Your task to perform on an android device: Open Wikipedia Image 0: 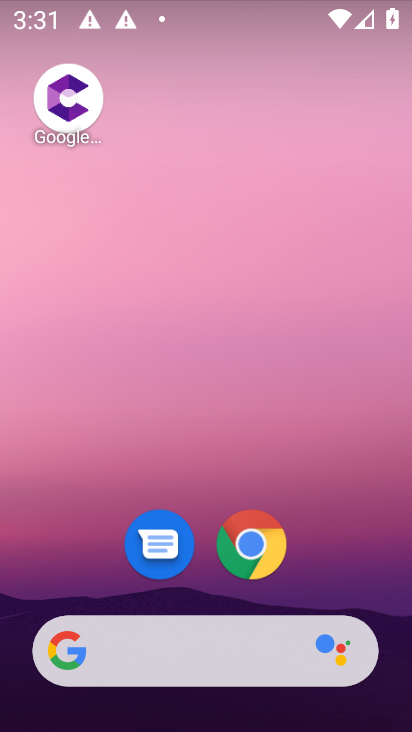
Step 0: click (204, 472)
Your task to perform on an android device: Open Wikipedia Image 1: 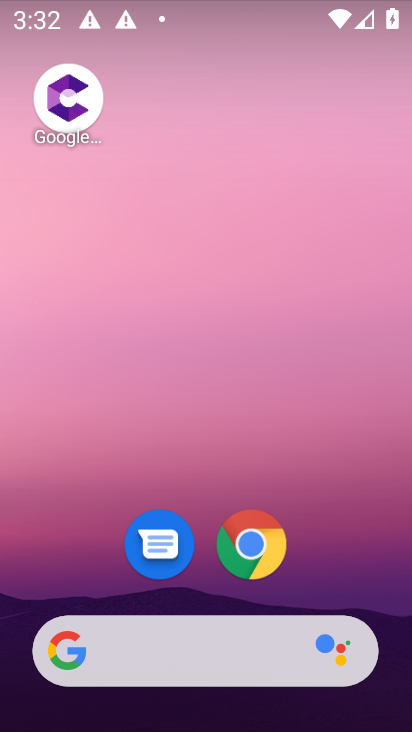
Step 1: click (244, 540)
Your task to perform on an android device: Open Wikipedia Image 2: 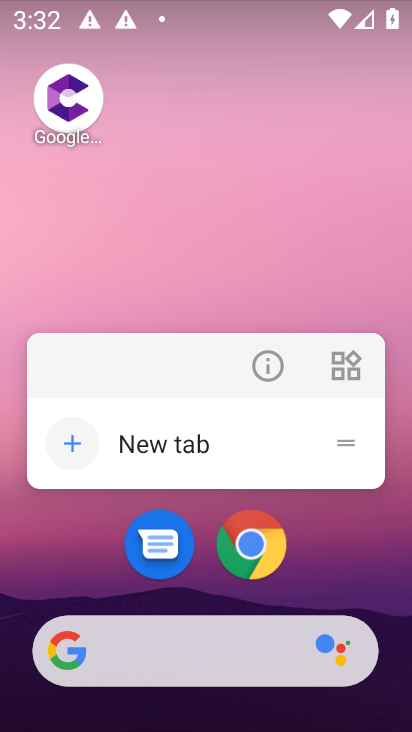
Step 2: click (250, 554)
Your task to perform on an android device: Open Wikipedia Image 3: 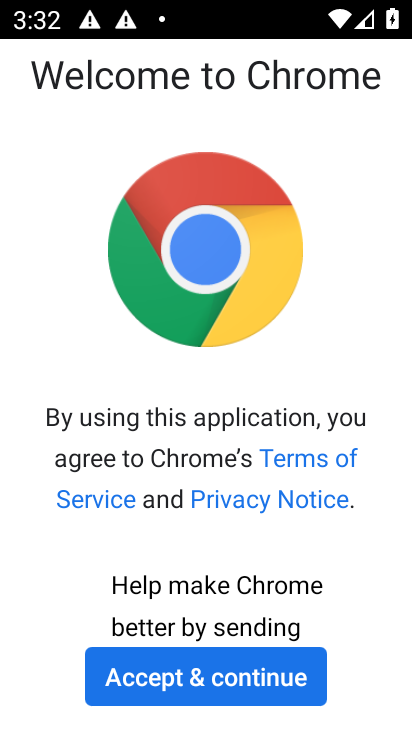
Step 3: click (170, 682)
Your task to perform on an android device: Open Wikipedia Image 4: 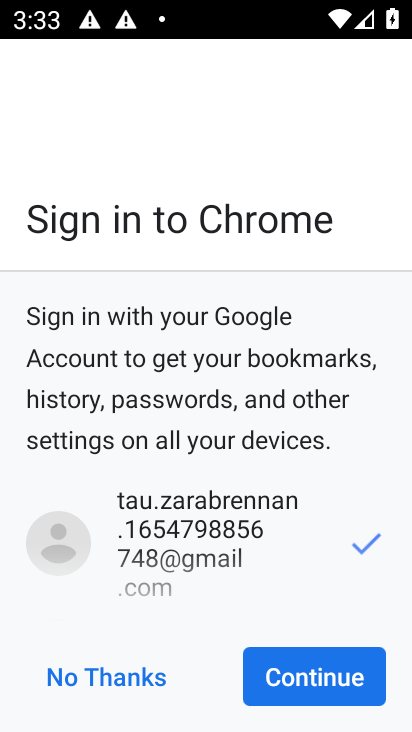
Step 4: click (310, 672)
Your task to perform on an android device: Open Wikipedia Image 5: 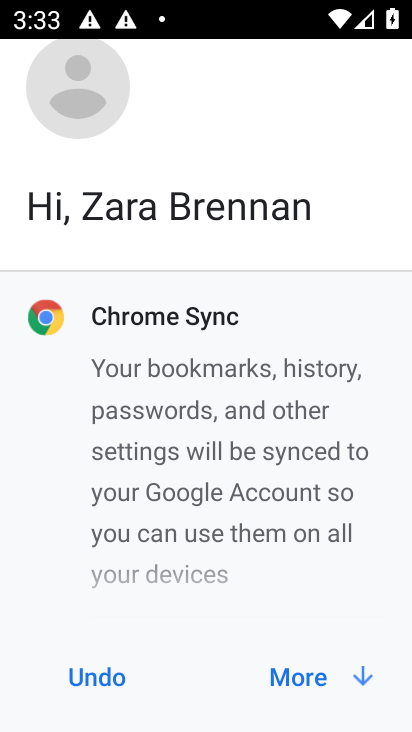
Step 5: click (302, 677)
Your task to perform on an android device: Open Wikipedia Image 6: 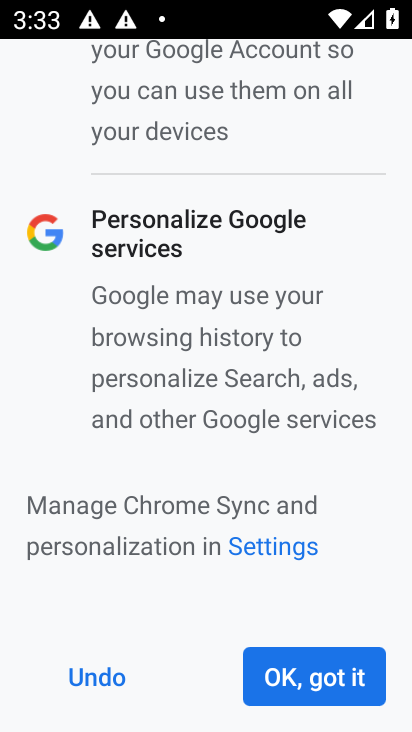
Step 6: click (302, 677)
Your task to perform on an android device: Open Wikipedia Image 7: 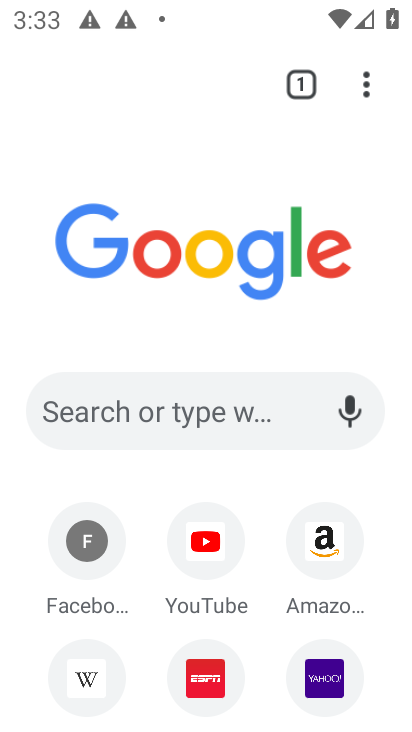
Step 7: click (79, 683)
Your task to perform on an android device: Open Wikipedia Image 8: 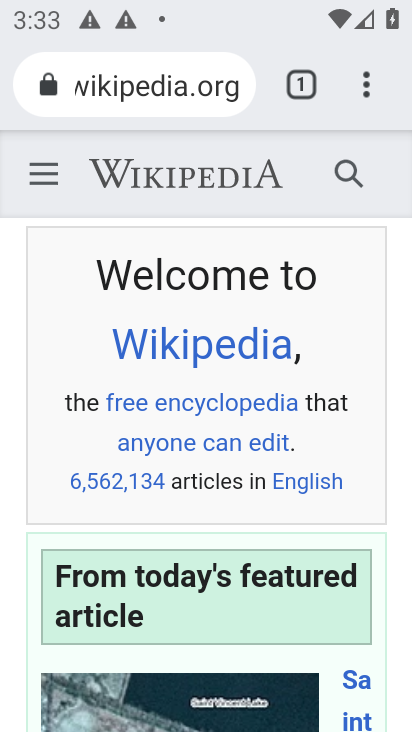
Step 8: task complete